Your task to perform on an android device: turn on translation in the chrome app Image 0: 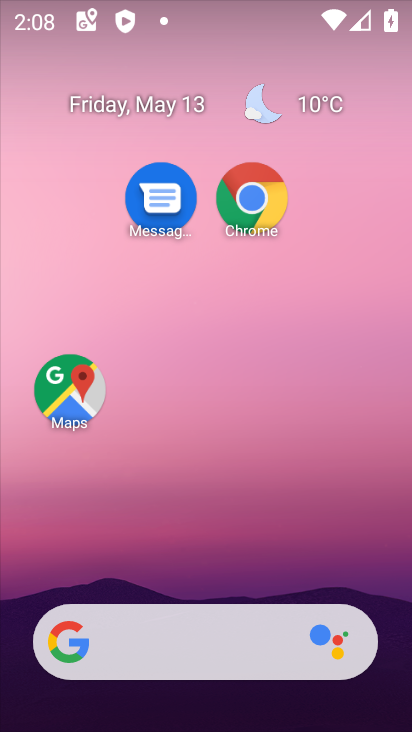
Step 0: click (249, 211)
Your task to perform on an android device: turn on translation in the chrome app Image 1: 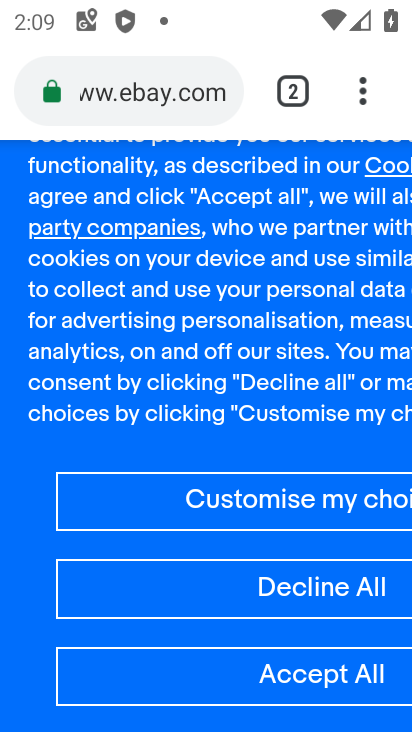
Step 1: click (372, 84)
Your task to perform on an android device: turn on translation in the chrome app Image 2: 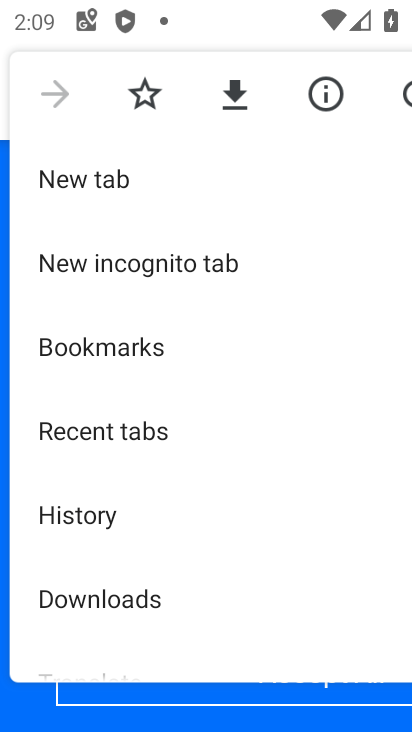
Step 2: drag from (216, 512) to (174, 71)
Your task to perform on an android device: turn on translation in the chrome app Image 3: 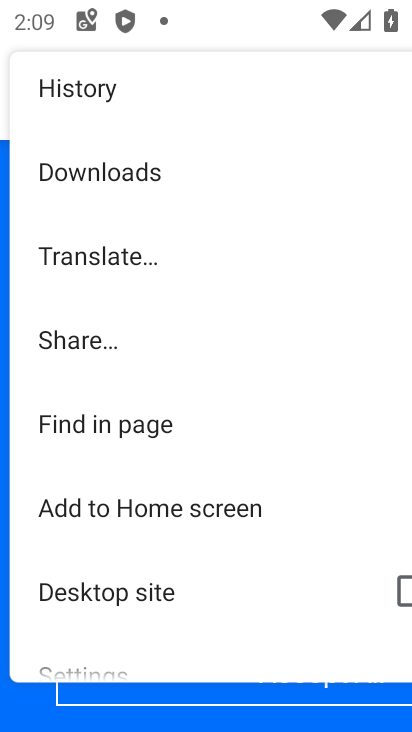
Step 3: click (121, 675)
Your task to perform on an android device: turn on translation in the chrome app Image 4: 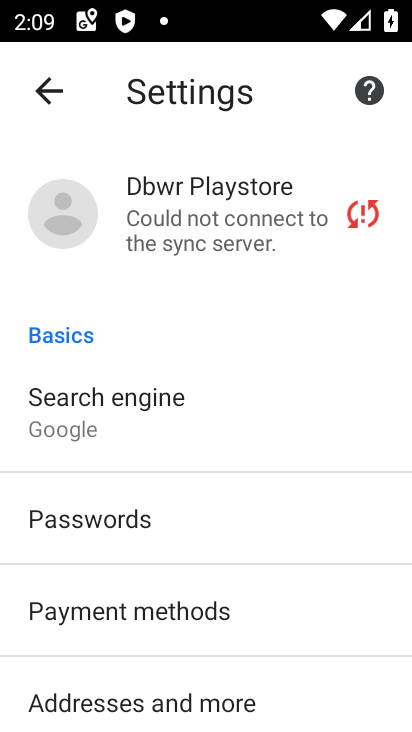
Step 4: drag from (131, 662) to (124, 168)
Your task to perform on an android device: turn on translation in the chrome app Image 5: 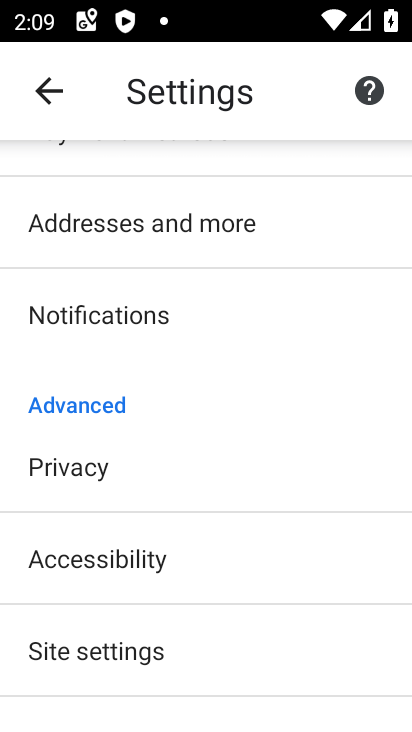
Step 5: drag from (170, 611) to (151, 266)
Your task to perform on an android device: turn on translation in the chrome app Image 6: 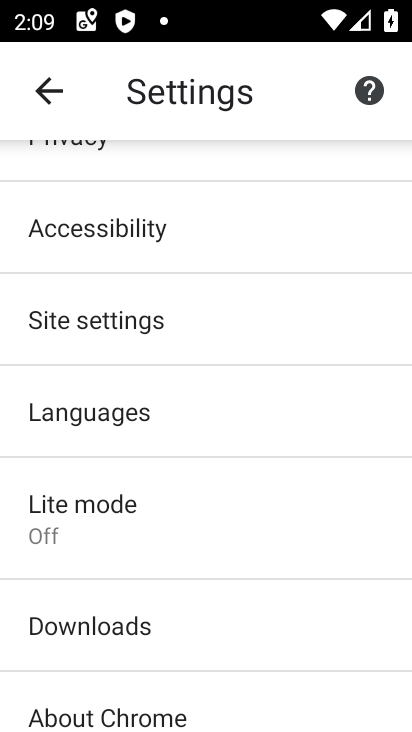
Step 6: drag from (177, 539) to (156, 349)
Your task to perform on an android device: turn on translation in the chrome app Image 7: 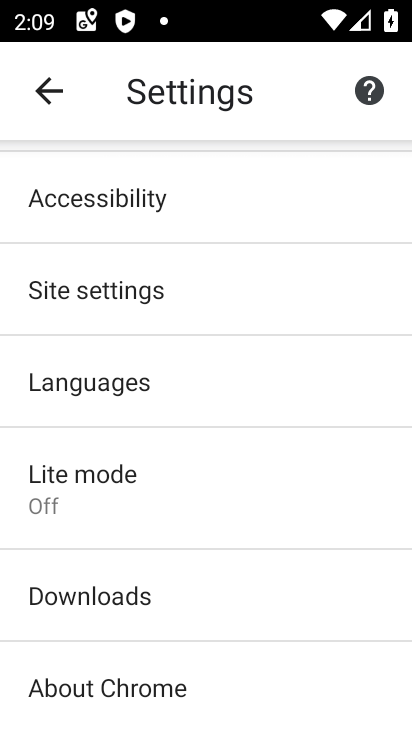
Step 7: drag from (245, 619) to (216, 289)
Your task to perform on an android device: turn on translation in the chrome app Image 8: 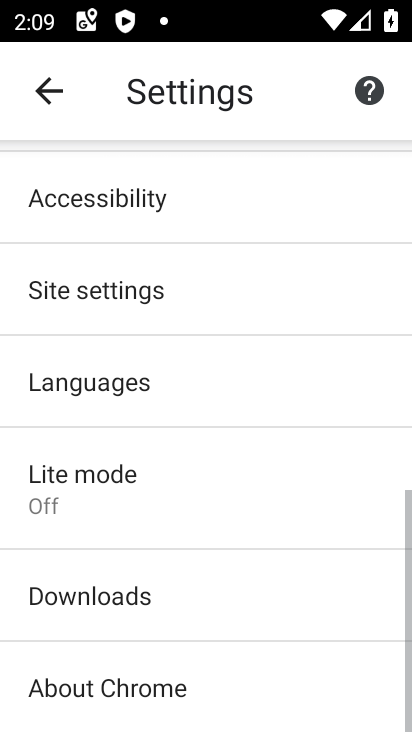
Step 8: click (112, 377)
Your task to perform on an android device: turn on translation in the chrome app Image 9: 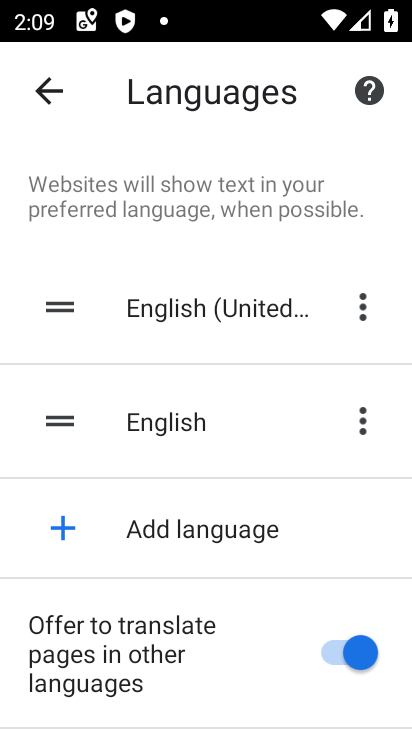
Step 9: task complete